Your task to perform on an android device: toggle javascript in the chrome app Image 0: 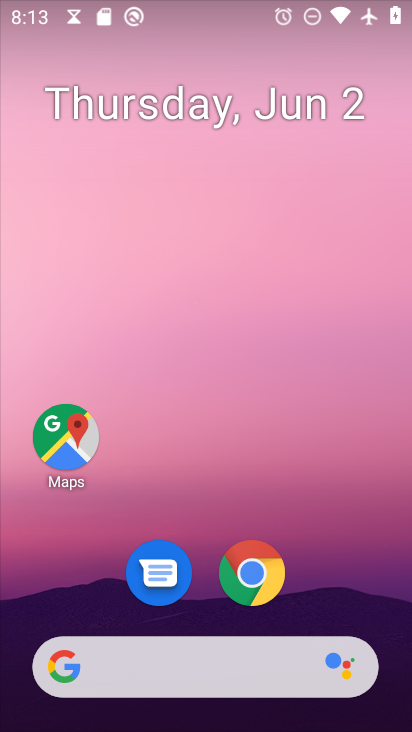
Step 0: press home button
Your task to perform on an android device: toggle javascript in the chrome app Image 1: 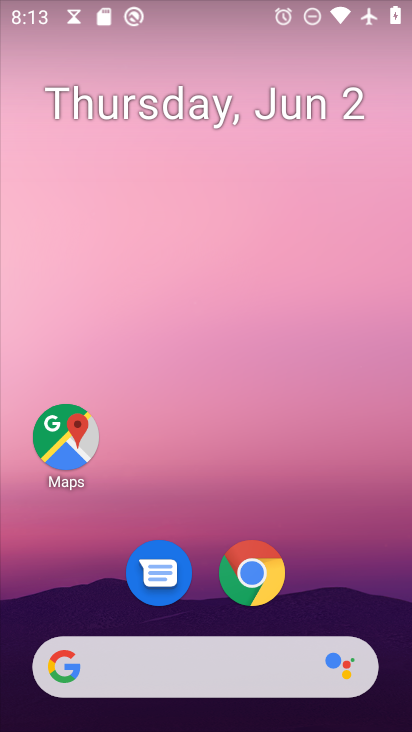
Step 1: click (248, 571)
Your task to perform on an android device: toggle javascript in the chrome app Image 2: 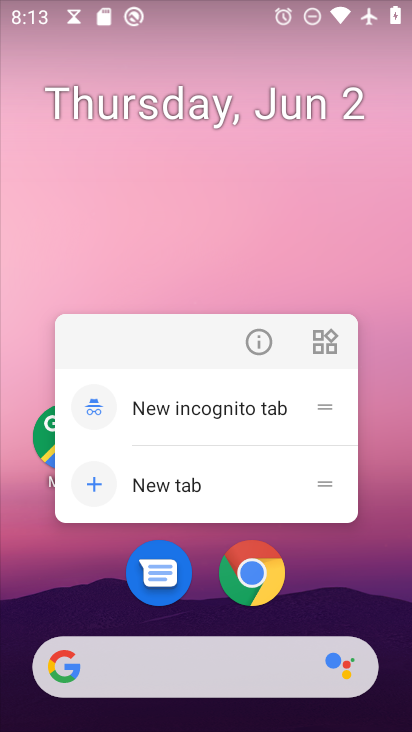
Step 2: click (246, 595)
Your task to perform on an android device: toggle javascript in the chrome app Image 3: 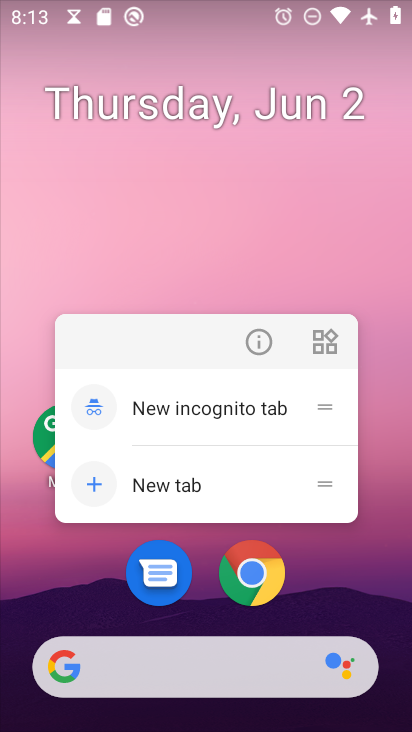
Step 3: click (256, 587)
Your task to perform on an android device: toggle javascript in the chrome app Image 4: 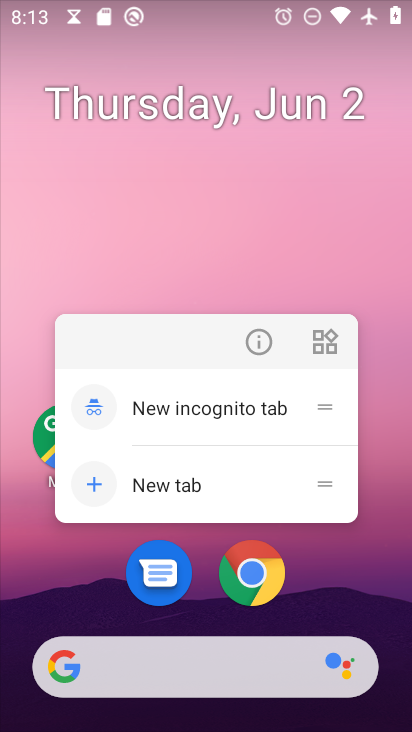
Step 4: click (256, 587)
Your task to perform on an android device: toggle javascript in the chrome app Image 5: 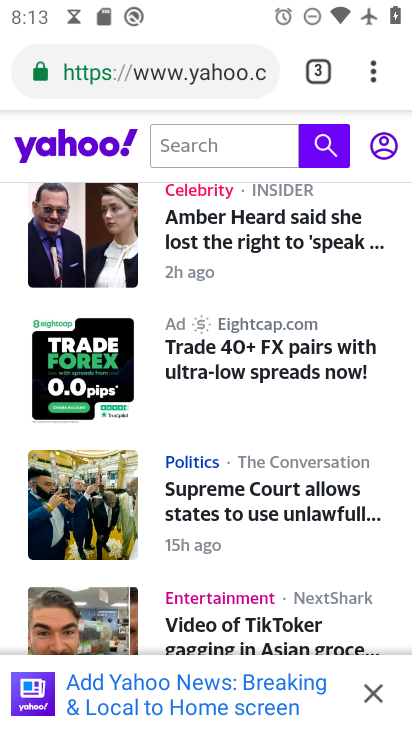
Step 5: drag from (377, 64) to (213, 583)
Your task to perform on an android device: toggle javascript in the chrome app Image 6: 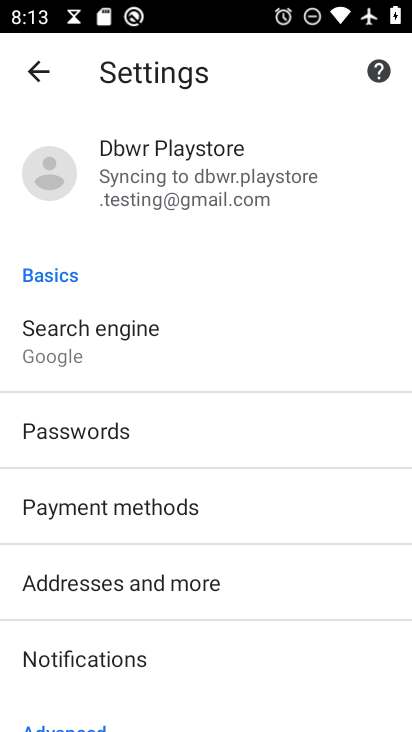
Step 6: drag from (198, 615) to (336, 114)
Your task to perform on an android device: toggle javascript in the chrome app Image 7: 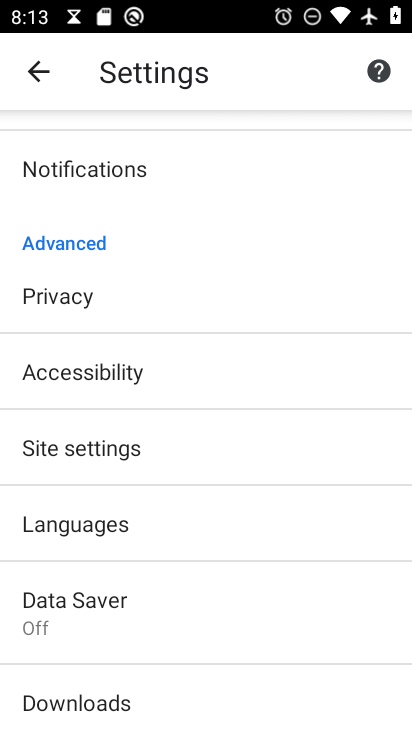
Step 7: click (139, 458)
Your task to perform on an android device: toggle javascript in the chrome app Image 8: 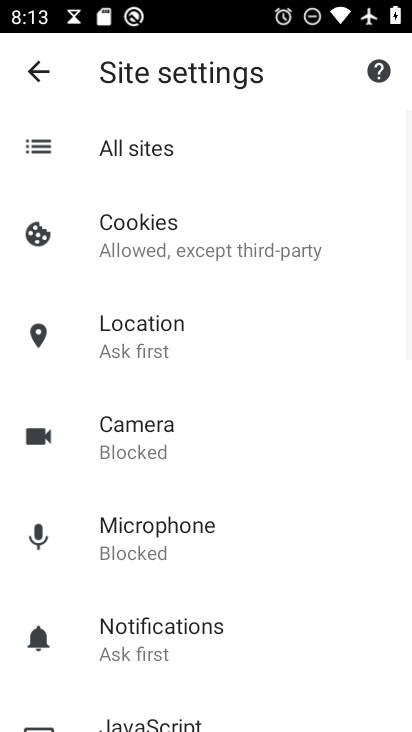
Step 8: drag from (204, 607) to (309, 282)
Your task to perform on an android device: toggle javascript in the chrome app Image 9: 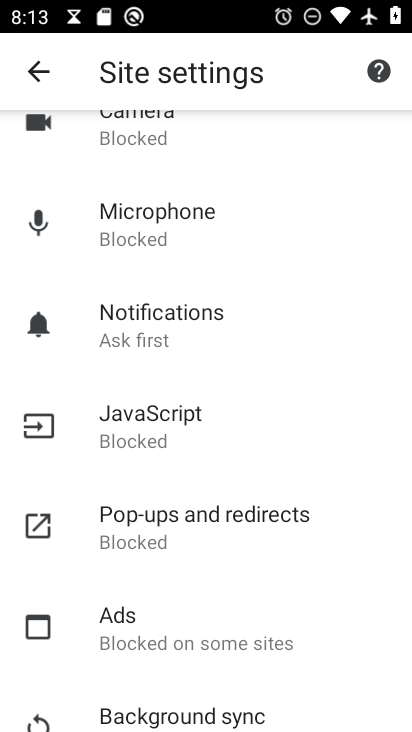
Step 9: click (148, 435)
Your task to perform on an android device: toggle javascript in the chrome app Image 10: 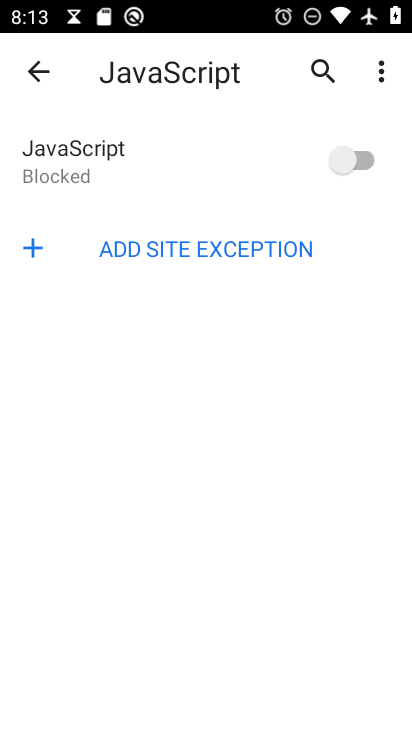
Step 10: click (361, 160)
Your task to perform on an android device: toggle javascript in the chrome app Image 11: 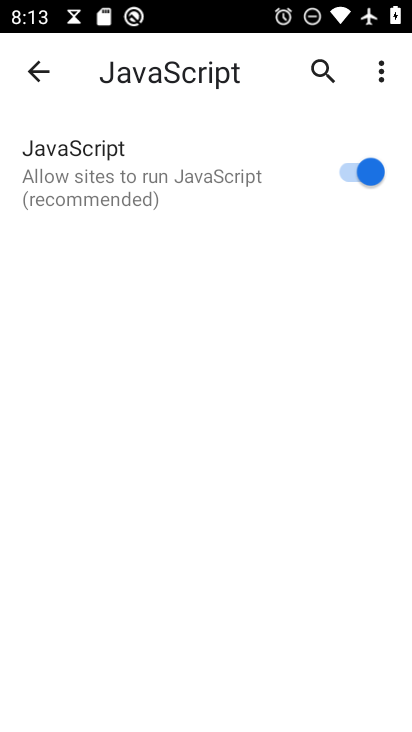
Step 11: task complete